Your task to perform on an android device: What's on my calendar today? Image 0: 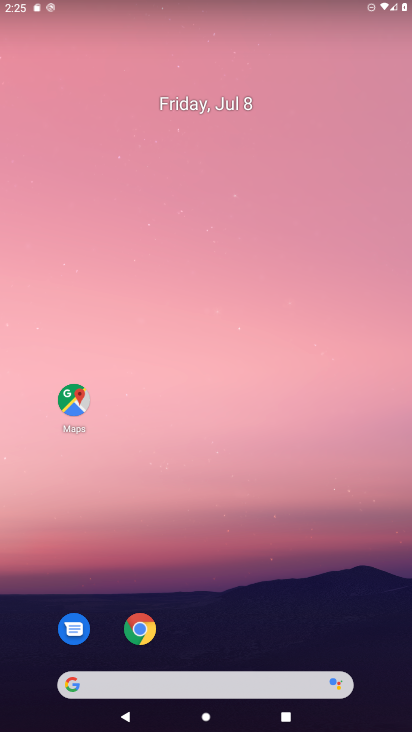
Step 0: drag from (37, 712) to (120, 229)
Your task to perform on an android device: What's on my calendar today? Image 1: 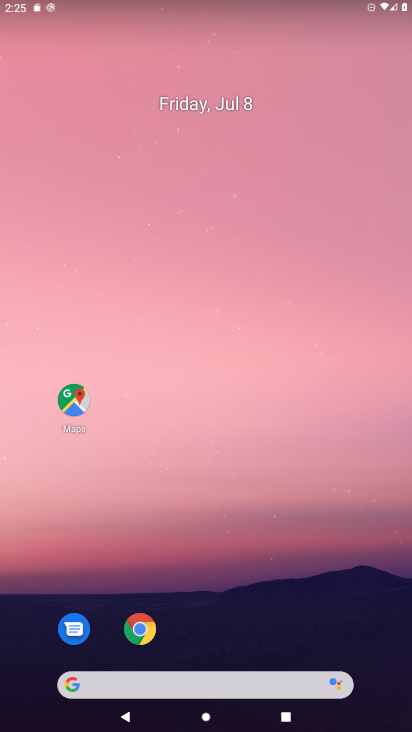
Step 1: drag from (54, 693) to (321, 19)
Your task to perform on an android device: What's on my calendar today? Image 2: 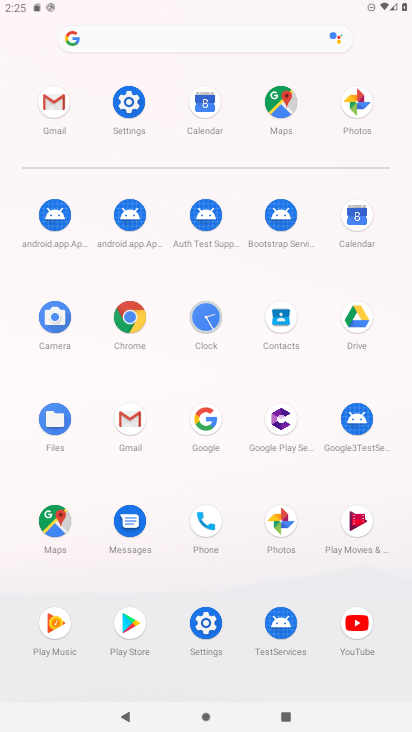
Step 2: click (345, 232)
Your task to perform on an android device: What's on my calendar today? Image 3: 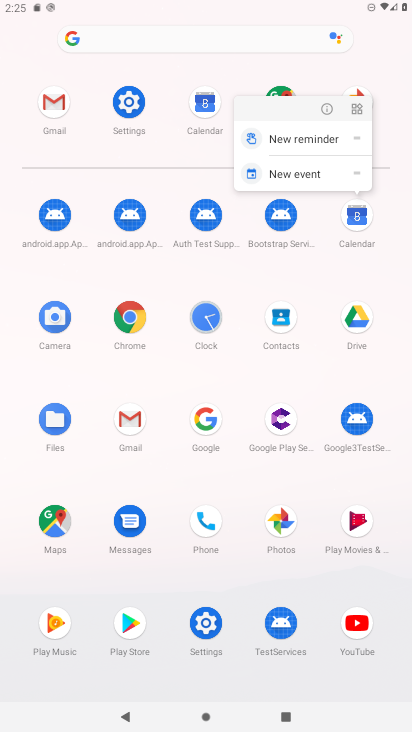
Step 3: click (358, 224)
Your task to perform on an android device: What's on my calendar today? Image 4: 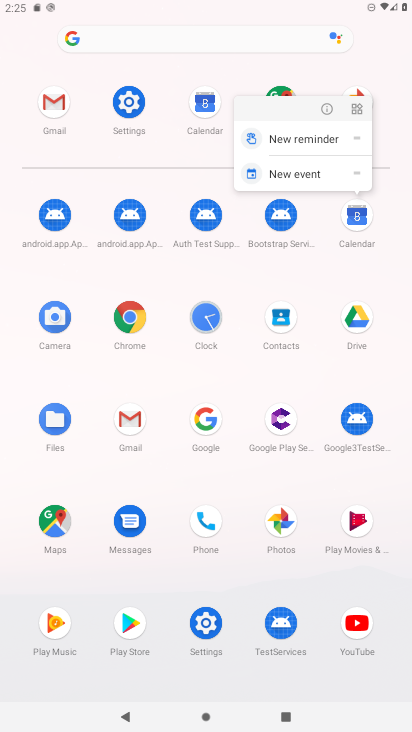
Step 4: click (359, 217)
Your task to perform on an android device: What's on my calendar today? Image 5: 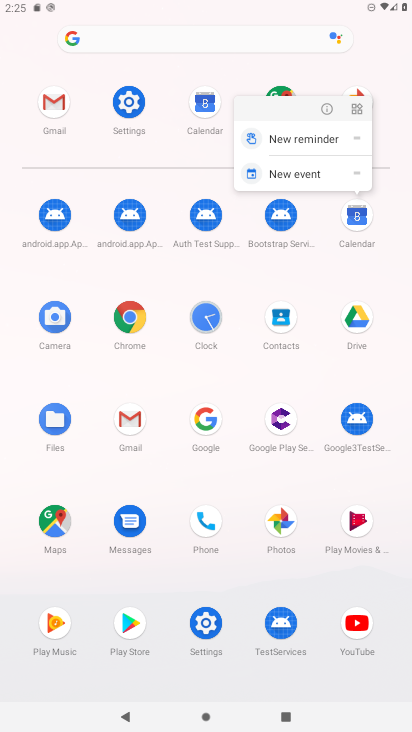
Step 5: click (359, 217)
Your task to perform on an android device: What's on my calendar today? Image 6: 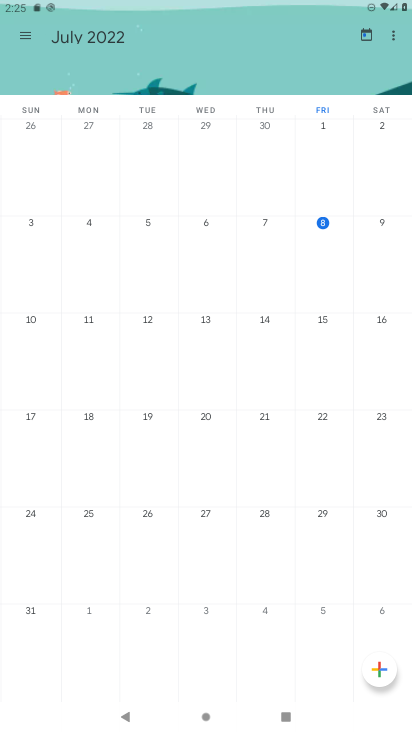
Step 6: task complete